Your task to perform on an android device: Open battery settings Image 0: 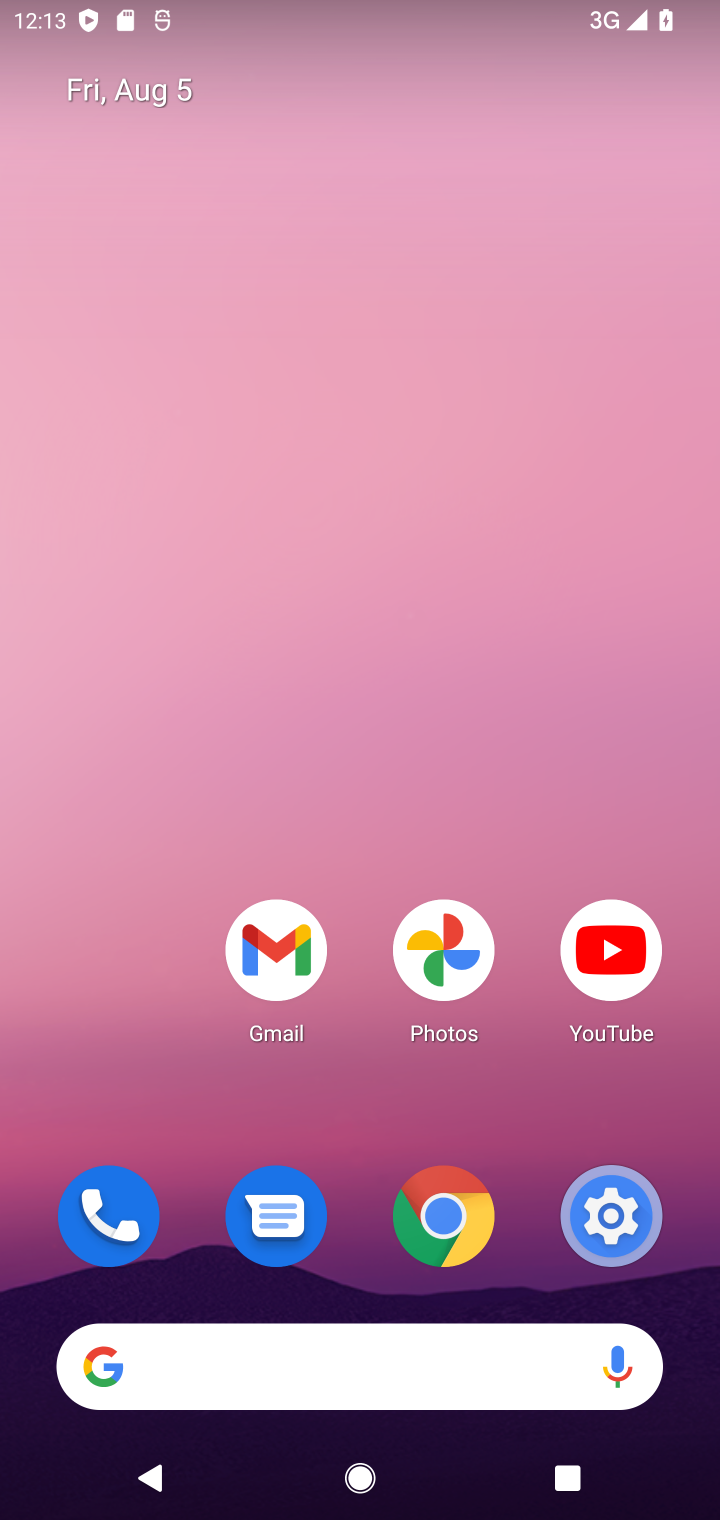
Step 0: drag from (457, 1319) to (462, 145)
Your task to perform on an android device: Open battery settings Image 1: 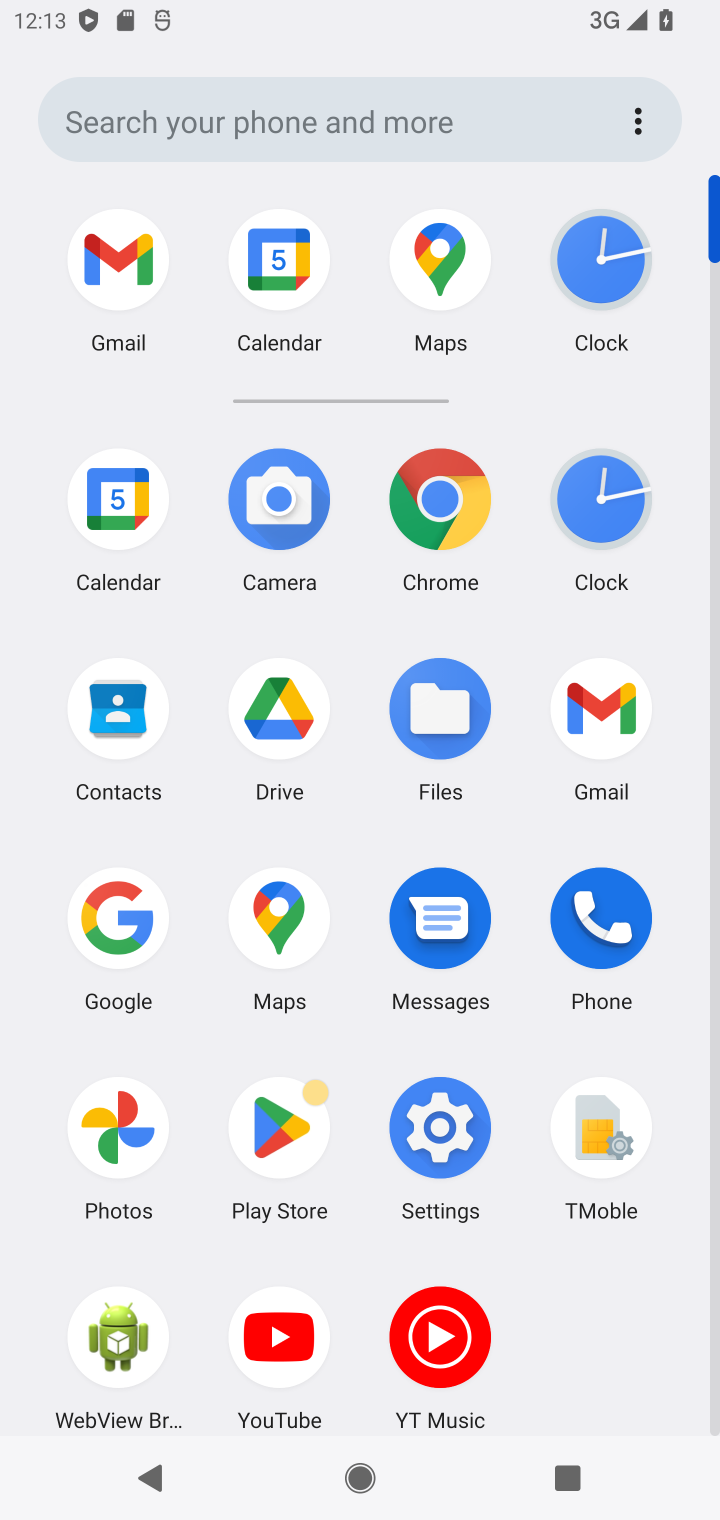
Step 1: click (418, 1137)
Your task to perform on an android device: Open battery settings Image 2: 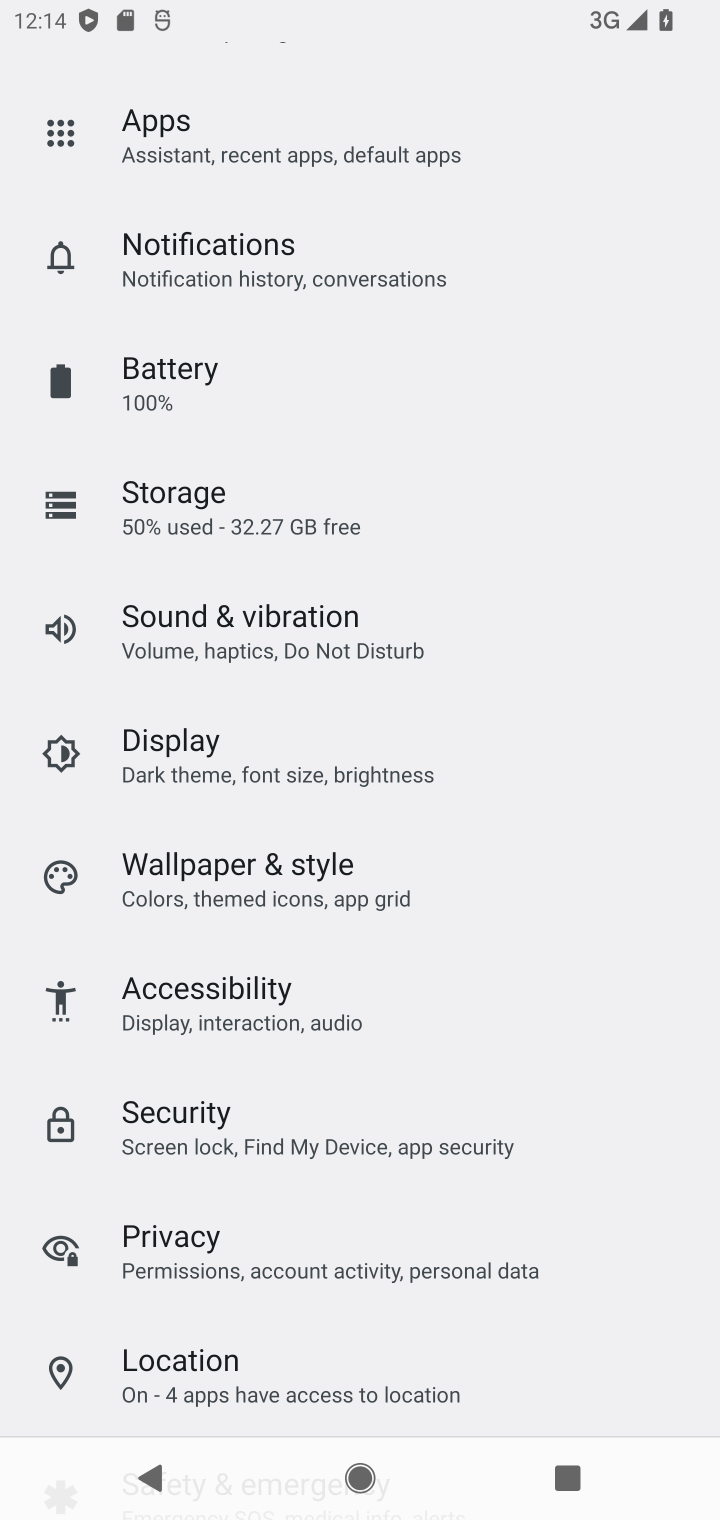
Step 2: click (130, 396)
Your task to perform on an android device: Open battery settings Image 3: 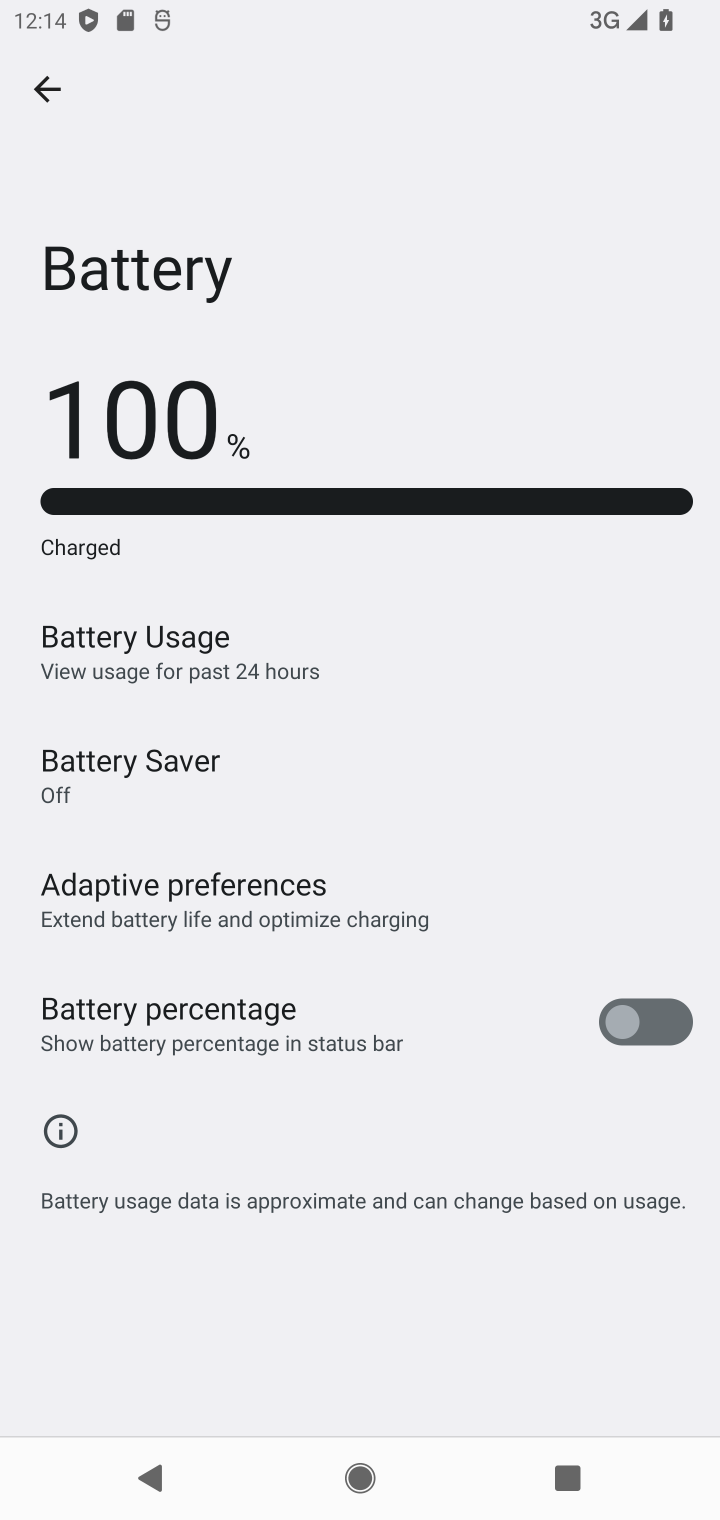
Step 3: task complete